Your task to perform on an android device: check google app version Image 0: 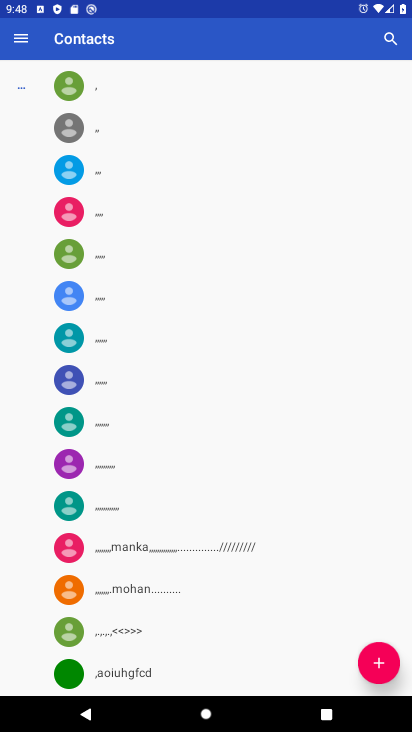
Step 0: press home button
Your task to perform on an android device: check google app version Image 1: 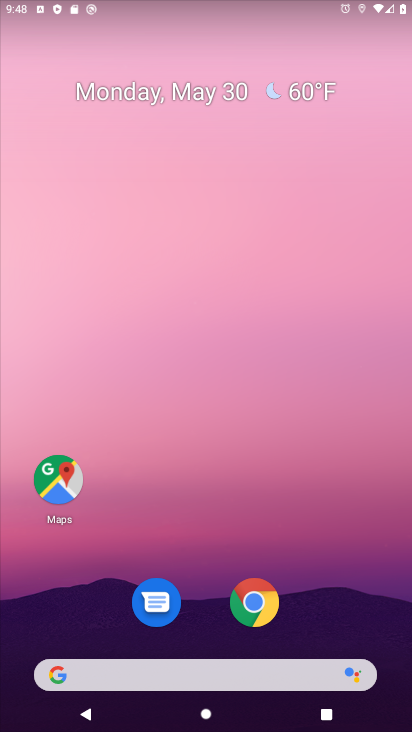
Step 1: drag from (199, 632) to (187, 149)
Your task to perform on an android device: check google app version Image 2: 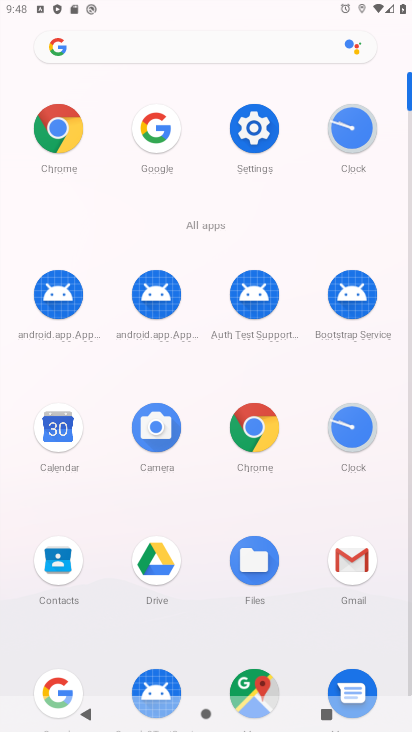
Step 2: drag from (83, 611) to (109, 411)
Your task to perform on an android device: check google app version Image 3: 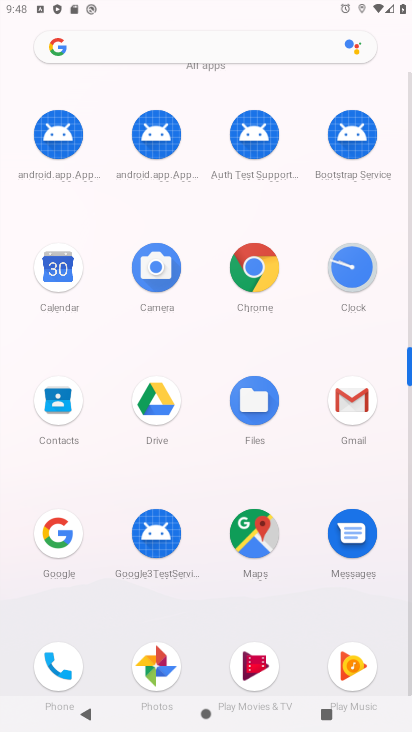
Step 3: click (74, 539)
Your task to perform on an android device: check google app version Image 4: 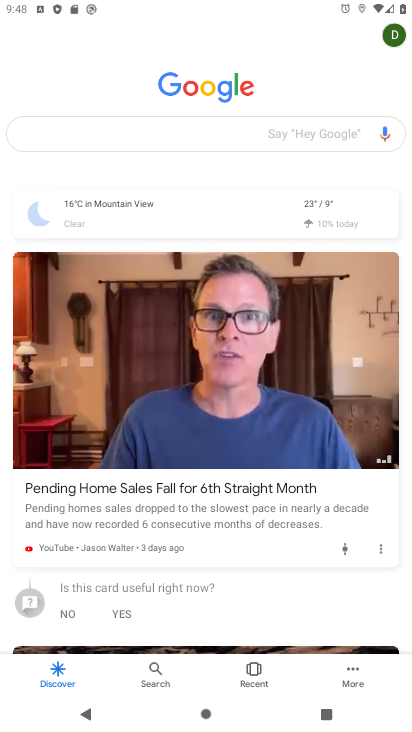
Step 4: click (358, 677)
Your task to perform on an android device: check google app version Image 5: 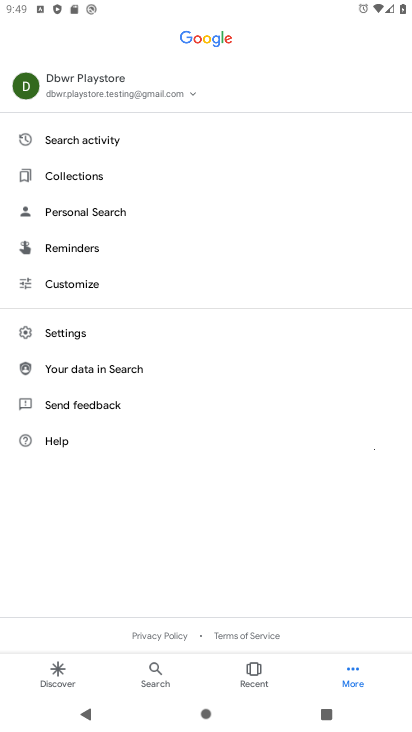
Step 5: click (89, 335)
Your task to perform on an android device: check google app version Image 6: 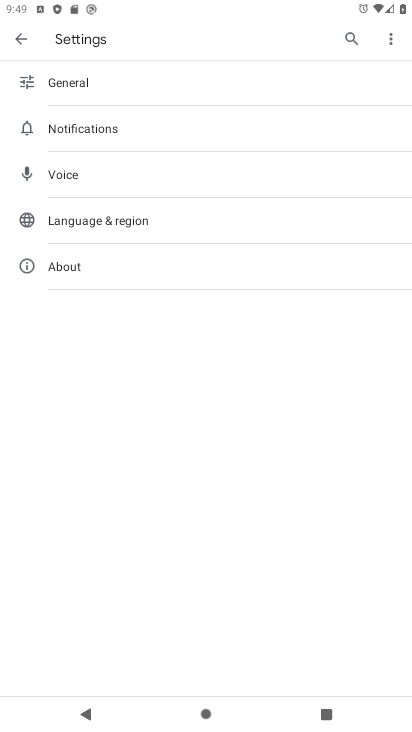
Step 6: click (109, 272)
Your task to perform on an android device: check google app version Image 7: 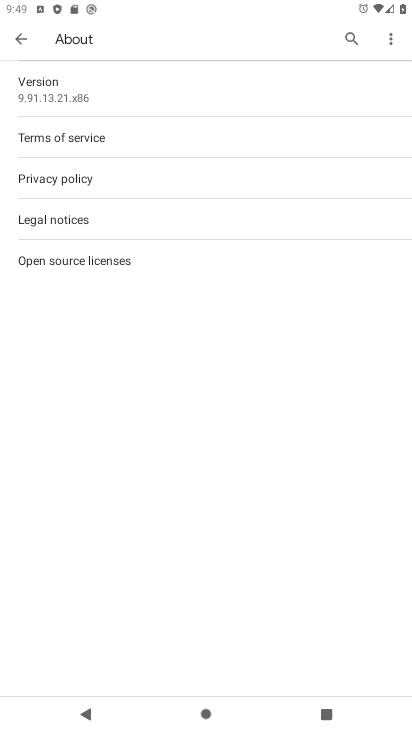
Step 7: click (64, 95)
Your task to perform on an android device: check google app version Image 8: 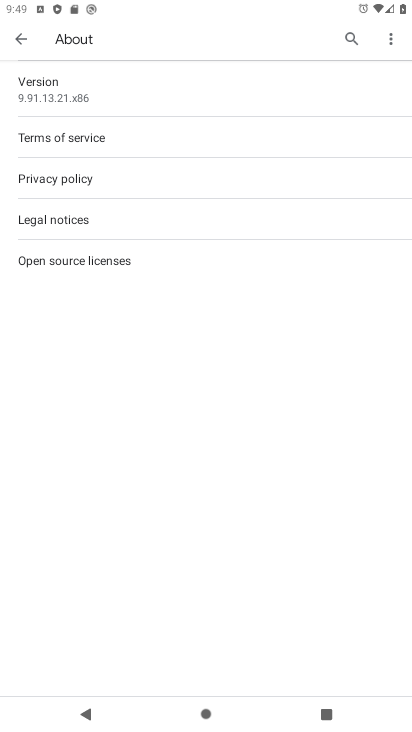
Step 8: task complete